Your task to perform on an android device: What's on my calendar today? Image 0: 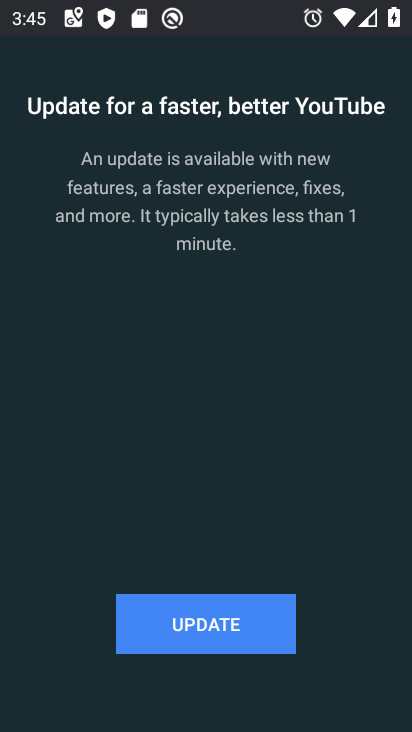
Step 0: press home button
Your task to perform on an android device: What's on my calendar today? Image 1: 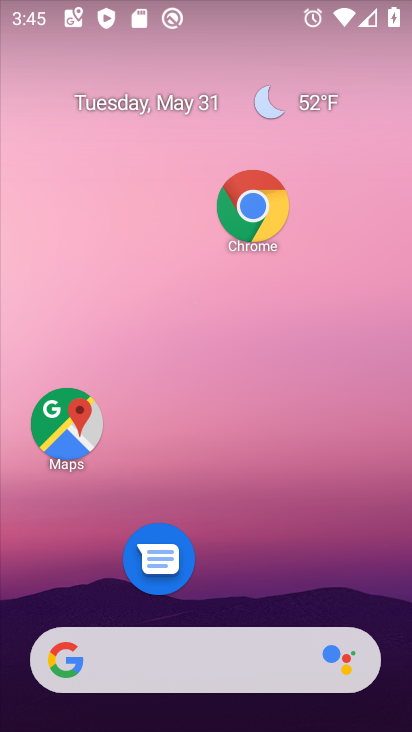
Step 1: drag from (223, 560) to (210, 158)
Your task to perform on an android device: What's on my calendar today? Image 2: 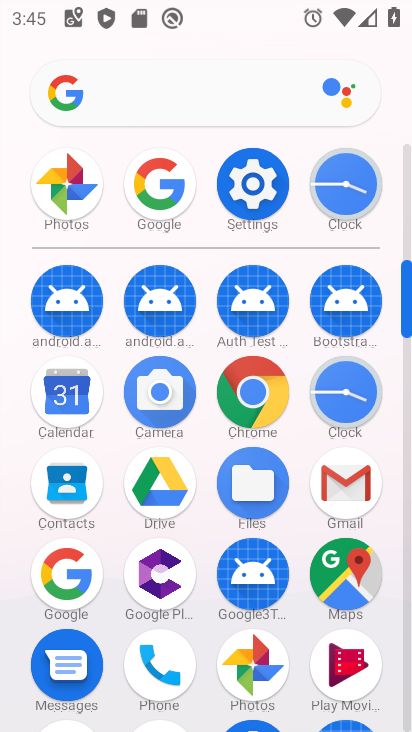
Step 2: click (77, 409)
Your task to perform on an android device: What's on my calendar today? Image 3: 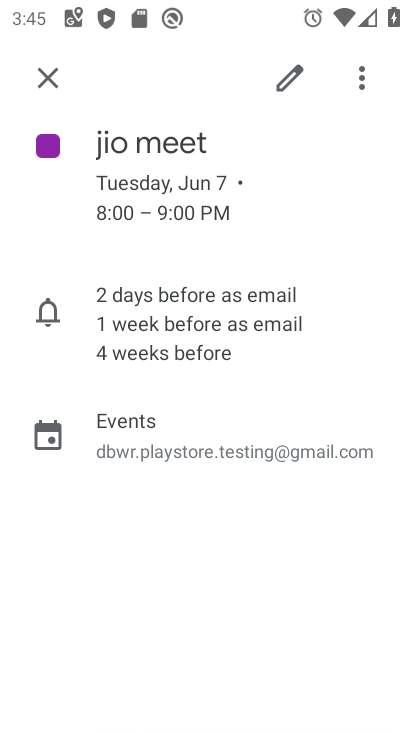
Step 3: click (52, 70)
Your task to perform on an android device: What's on my calendar today? Image 4: 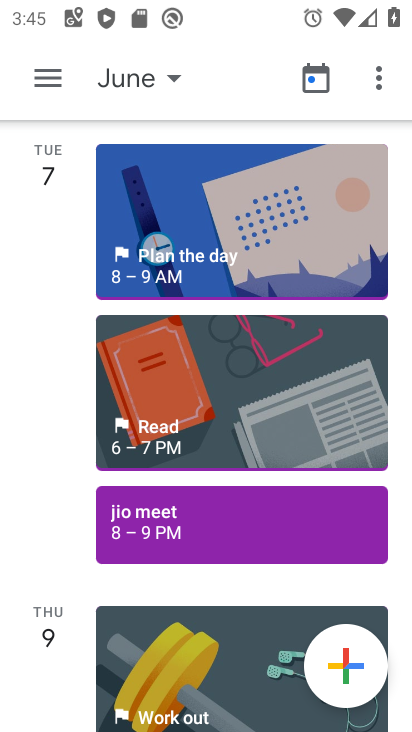
Step 4: click (167, 80)
Your task to perform on an android device: What's on my calendar today? Image 5: 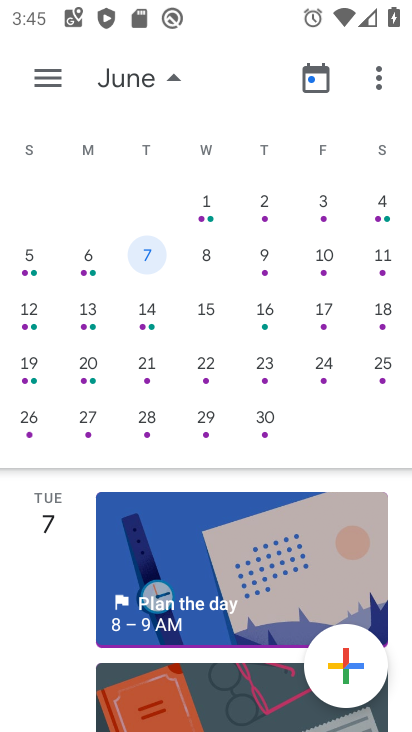
Step 5: drag from (28, 228) to (377, 249)
Your task to perform on an android device: What's on my calendar today? Image 6: 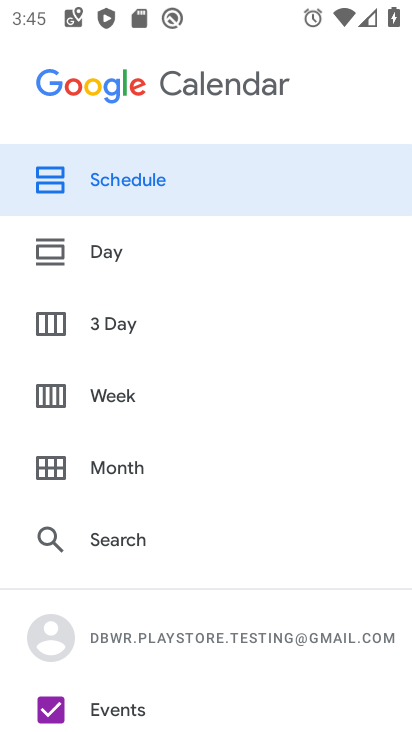
Step 6: drag from (338, 333) to (18, 294)
Your task to perform on an android device: What's on my calendar today? Image 7: 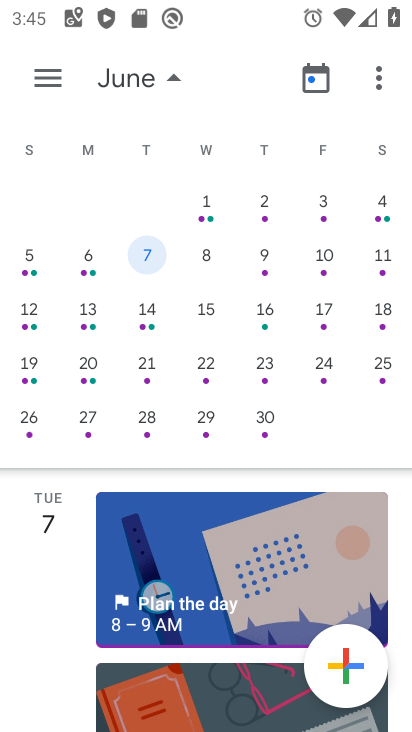
Step 7: drag from (55, 188) to (343, 217)
Your task to perform on an android device: What's on my calendar today? Image 8: 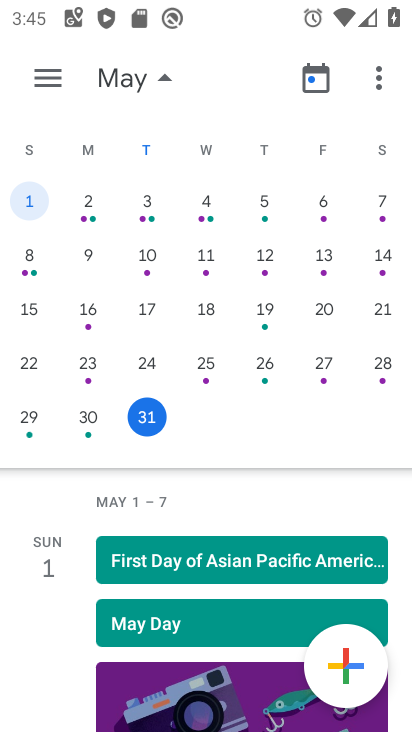
Step 8: click (156, 418)
Your task to perform on an android device: What's on my calendar today? Image 9: 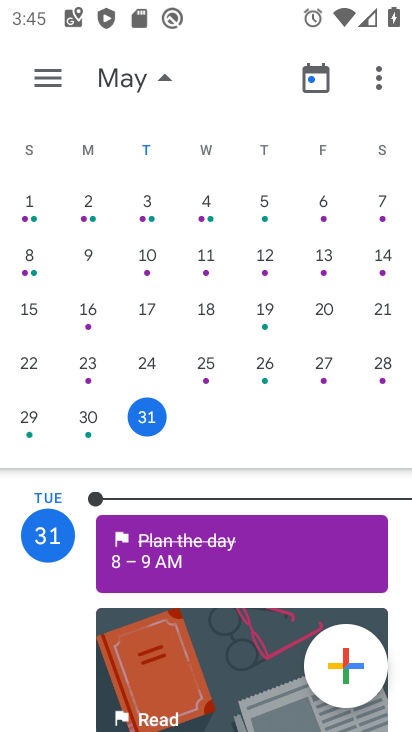
Step 9: task complete